Your task to perform on an android device: Play the last video I watched on Youtube Image 0: 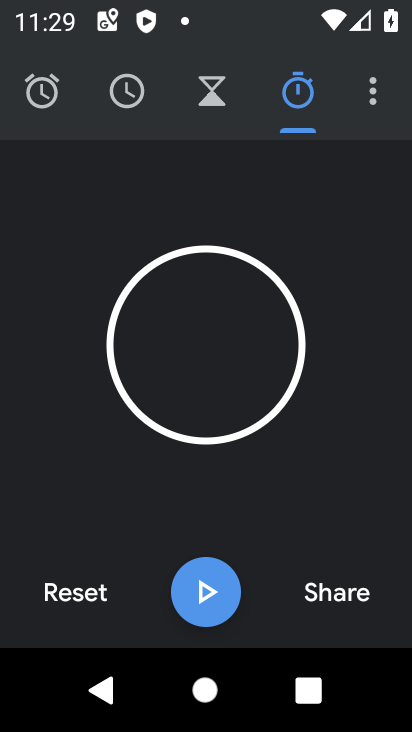
Step 0: press back button
Your task to perform on an android device: Play the last video I watched on Youtube Image 1: 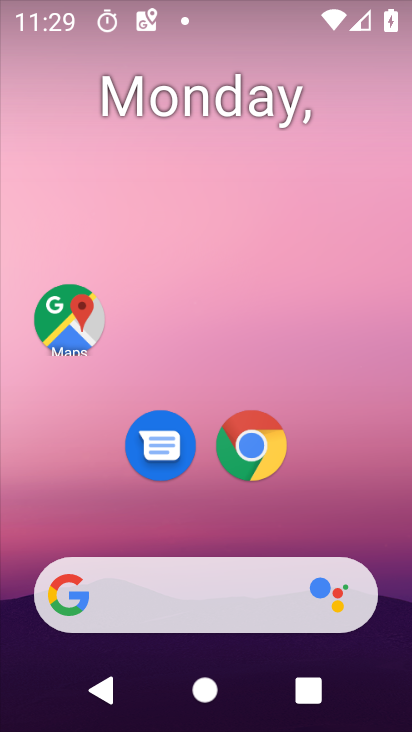
Step 1: drag from (198, 536) to (320, 46)
Your task to perform on an android device: Play the last video I watched on Youtube Image 2: 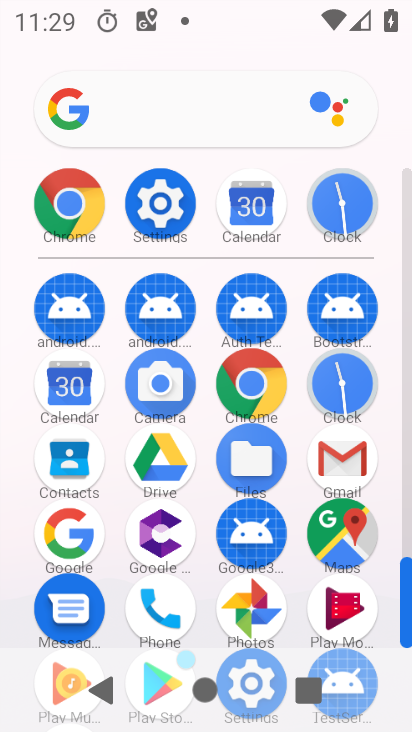
Step 2: drag from (242, 542) to (322, 67)
Your task to perform on an android device: Play the last video I watched on Youtube Image 3: 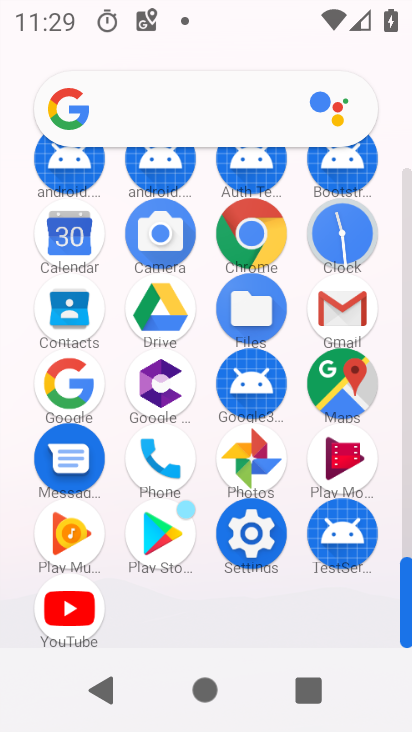
Step 3: click (54, 607)
Your task to perform on an android device: Play the last video I watched on Youtube Image 4: 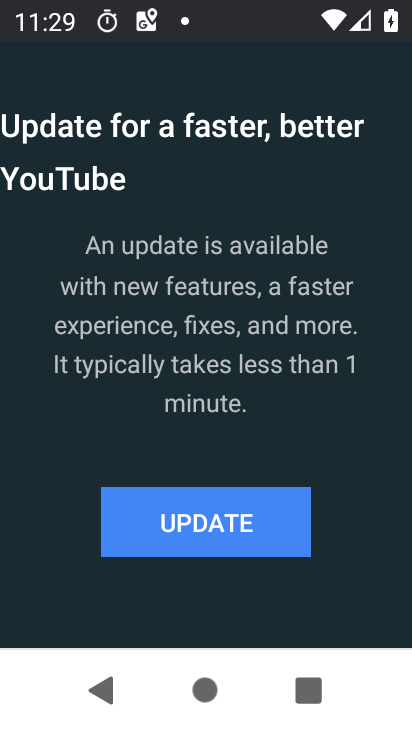
Step 4: click (79, 535)
Your task to perform on an android device: Play the last video I watched on Youtube Image 5: 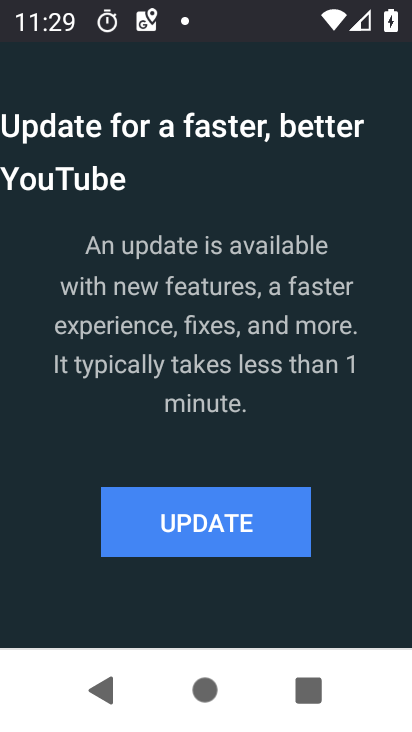
Step 5: click (151, 518)
Your task to perform on an android device: Play the last video I watched on Youtube Image 6: 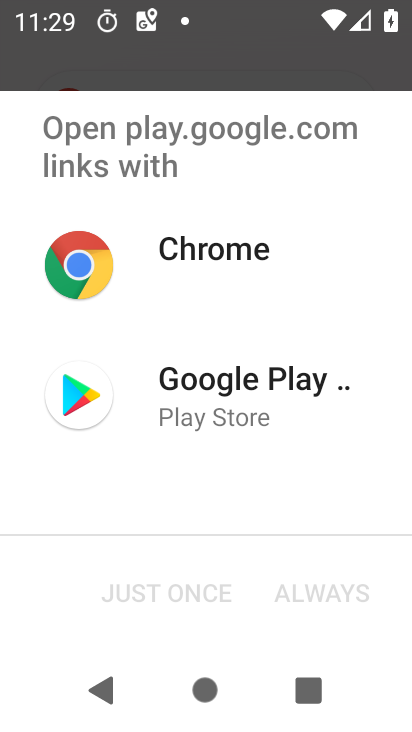
Step 6: click (192, 373)
Your task to perform on an android device: Play the last video I watched on Youtube Image 7: 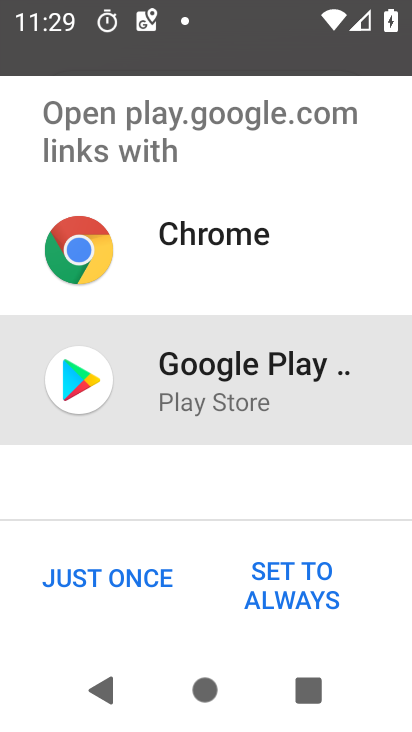
Step 7: click (72, 572)
Your task to perform on an android device: Play the last video I watched on Youtube Image 8: 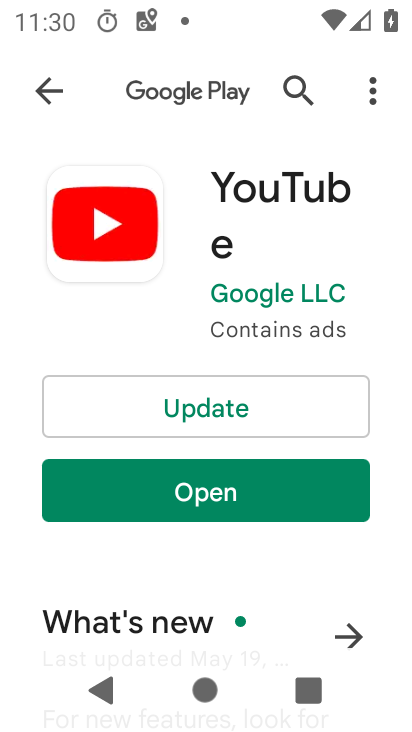
Step 8: click (190, 401)
Your task to perform on an android device: Play the last video I watched on Youtube Image 9: 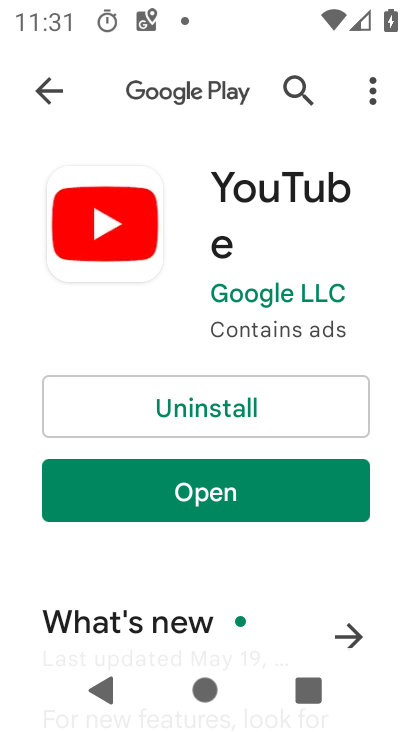
Step 9: click (190, 496)
Your task to perform on an android device: Play the last video I watched on Youtube Image 10: 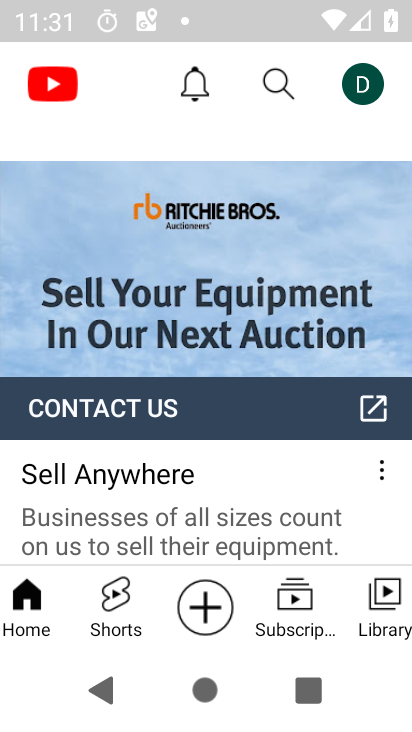
Step 10: click (376, 595)
Your task to perform on an android device: Play the last video I watched on Youtube Image 11: 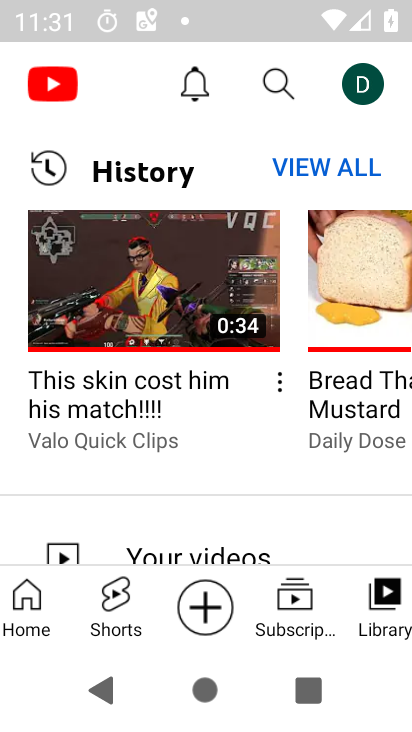
Step 11: click (159, 287)
Your task to perform on an android device: Play the last video I watched on Youtube Image 12: 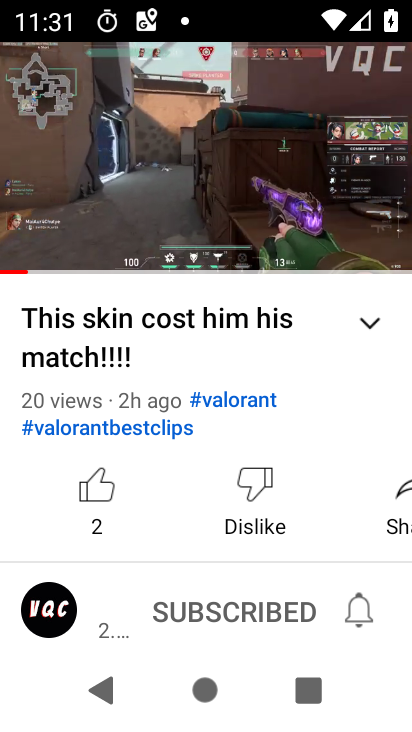
Step 12: task complete